Your task to perform on an android device: Open my contact list Image 0: 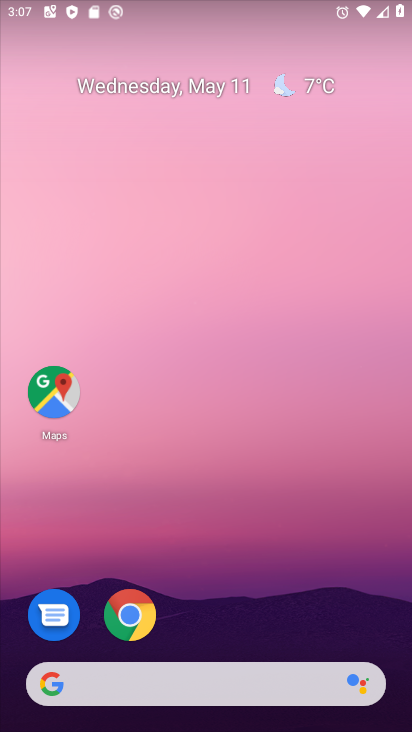
Step 0: drag from (254, 577) to (274, 58)
Your task to perform on an android device: Open my contact list Image 1: 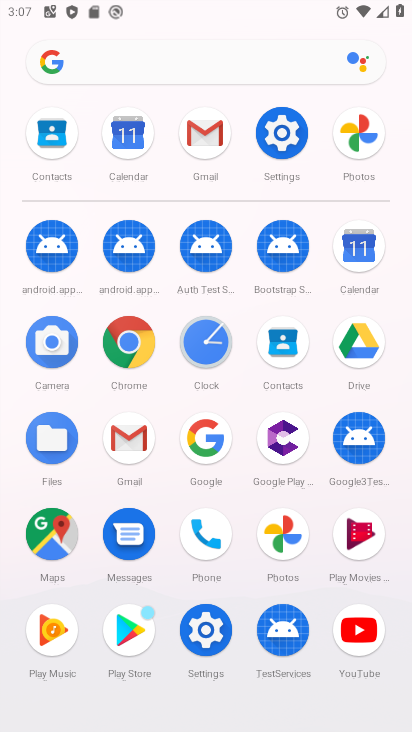
Step 1: click (278, 347)
Your task to perform on an android device: Open my contact list Image 2: 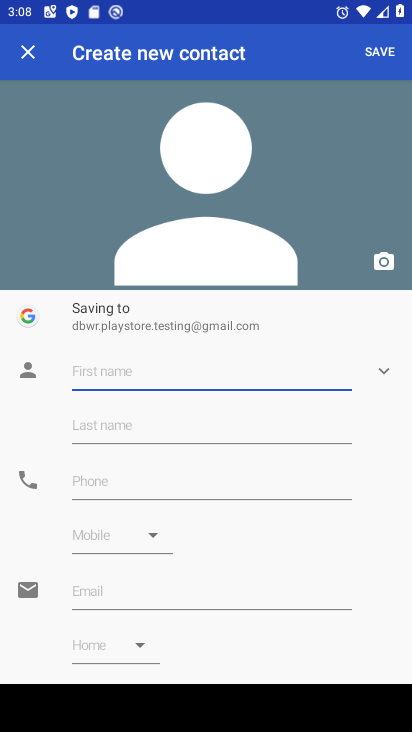
Step 2: click (24, 53)
Your task to perform on an android device: Open my contact list Image 3: 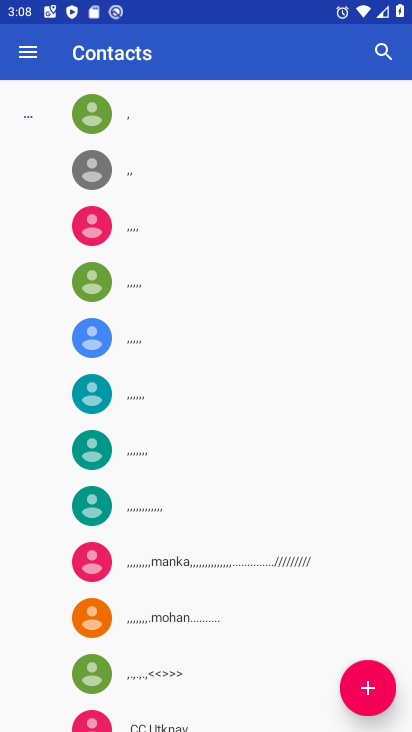
Step 3: task complete